Your task to perform on an android device: turn on location history Image 0: 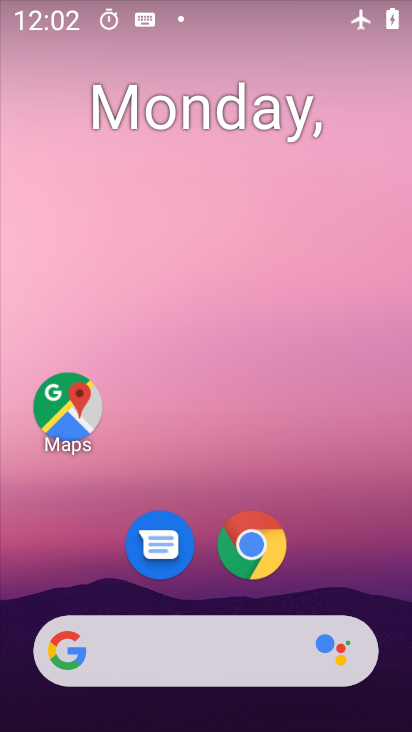
Step 0: drag from (195, 577) to (275, 99)
Your task to perform on an android device: turn on location history Image 1: 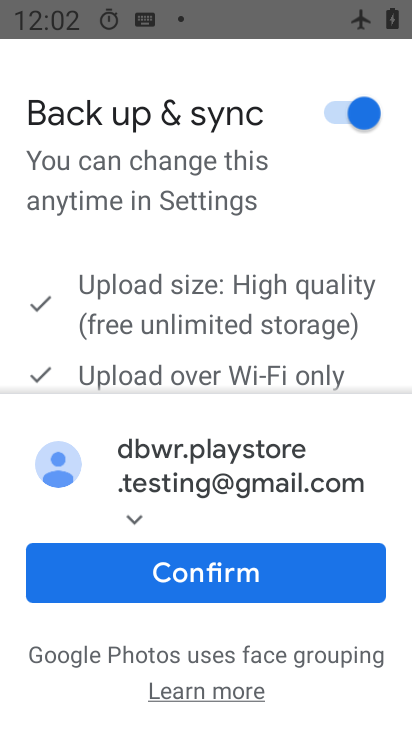
Step 1: press home button
Your task to perform on an android device: turn on location history Image 2: 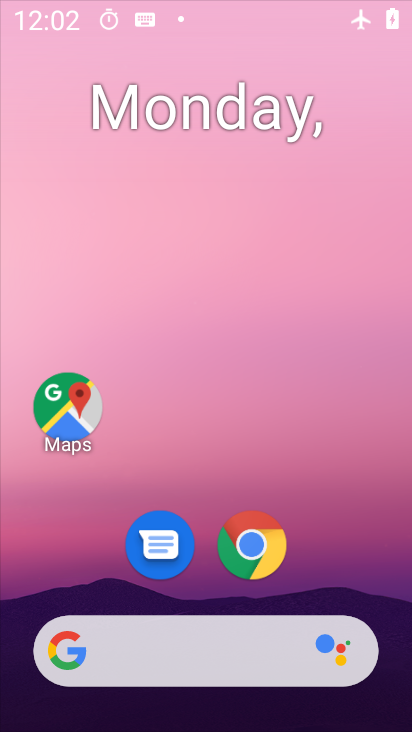
Step 2: drag from (257, 563) to (232, 151)
Your task to perform on an android device: turn on location history Image 3: 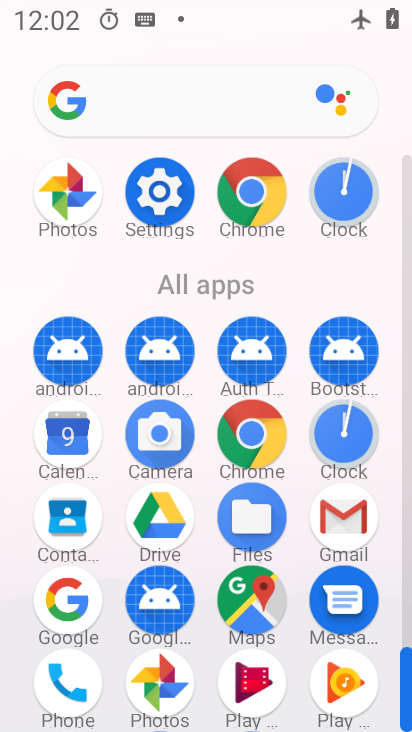
Step 3: click (168, 191)
Your task to perform on an android device: turn on location history Image 4: 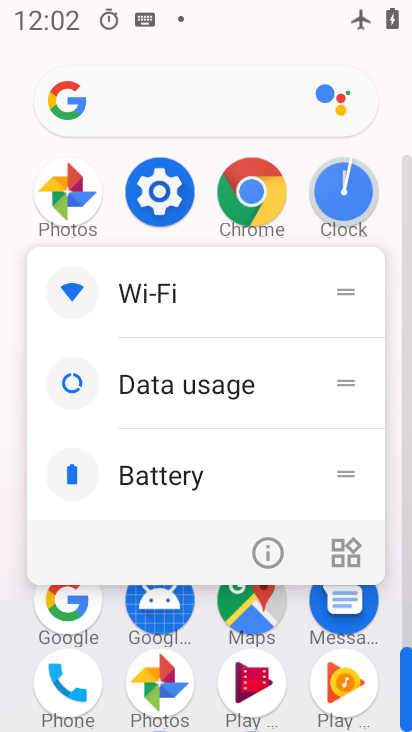
Step 4: click (266, 560)
Your task to perform on an android device: turn on location history Image 5: 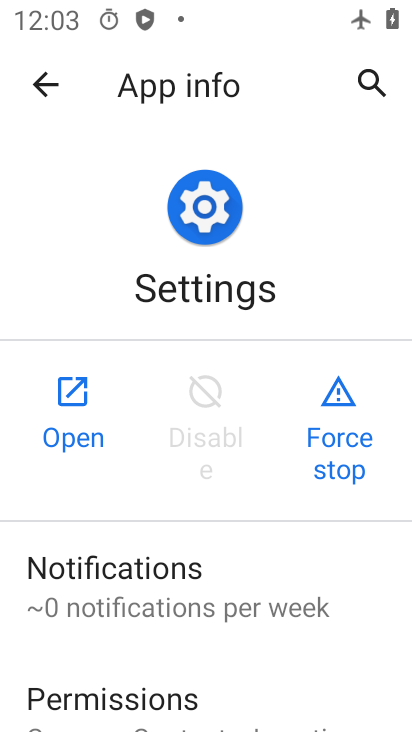
Step 5: click (69, 385)
Your task to perform on an android device: turn on location history Image 6: 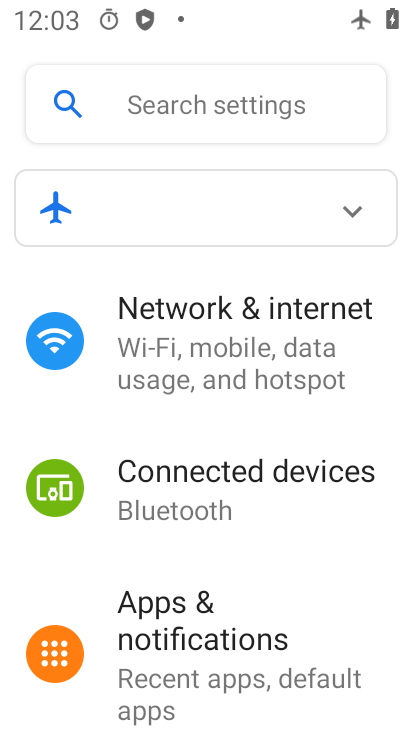
Step 6: drag from (139, 653) to (224, 161)
Your task to perform on an android device: turn on location history Image 7: 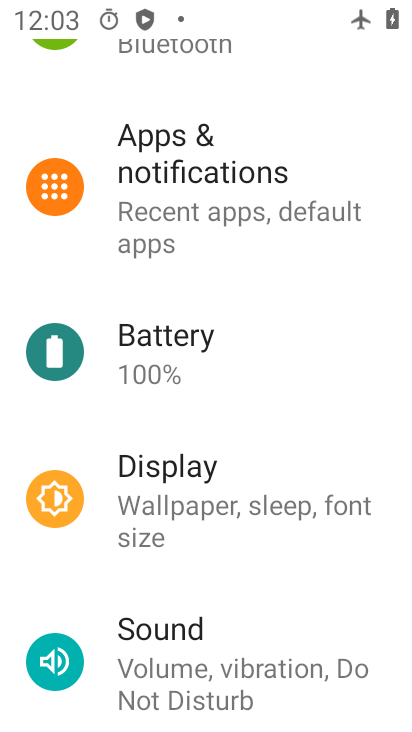
Step 7: drag from (211, 612) to (322, 140)
Your task to perform on an android device: turn on location history Image 8: 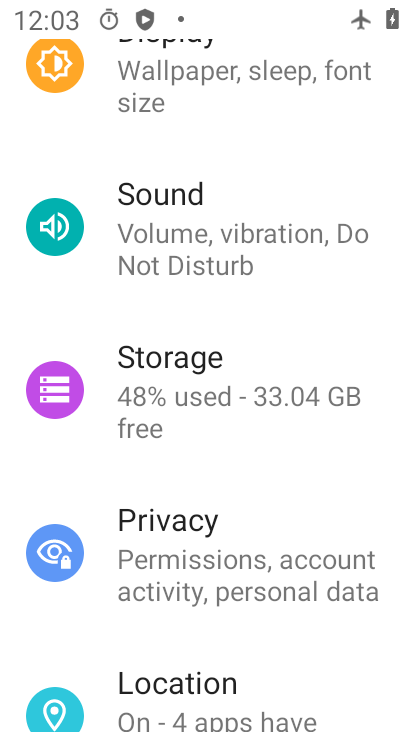
Step 8: click (169, 695)
Your task to perform on an android device: turn on location history Image 9: 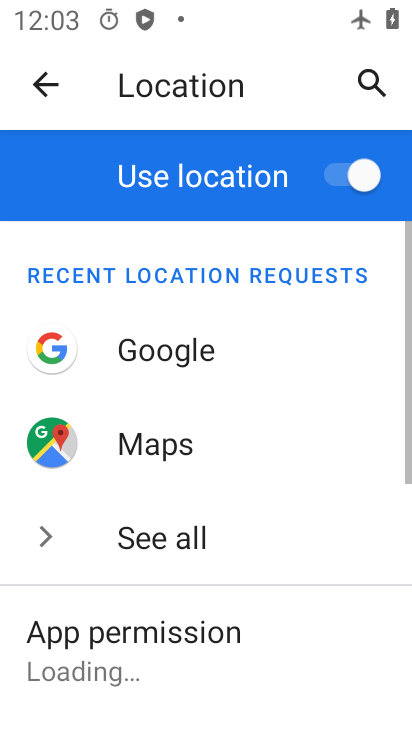
Step 9: drag from (194, 669) to (256, 242)
Your task to perform on an android device: turn on location history Image 10: 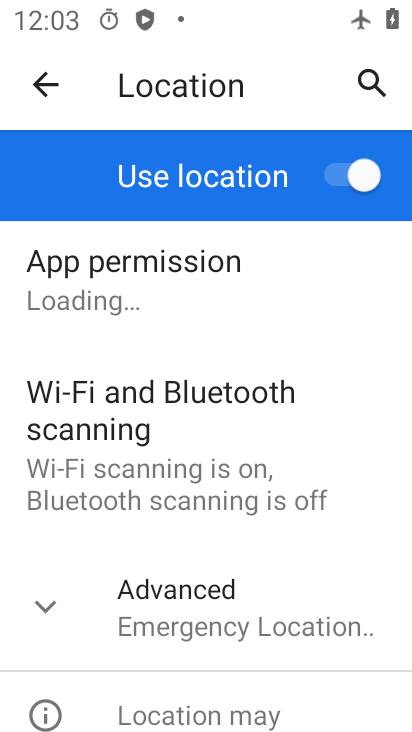
Step 10: click (142, 617)
Your task to perform on an android device: turn on location history Image 11: 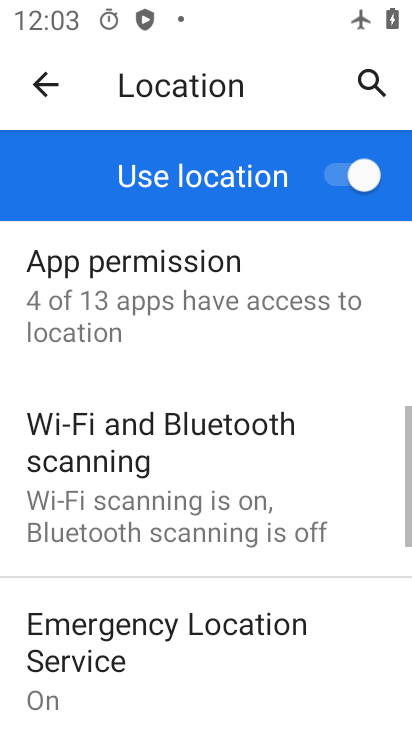
Step 11: drag from (193, 671) to (274, 223)
Your task to perform on an android device: turn on location history Image 12: 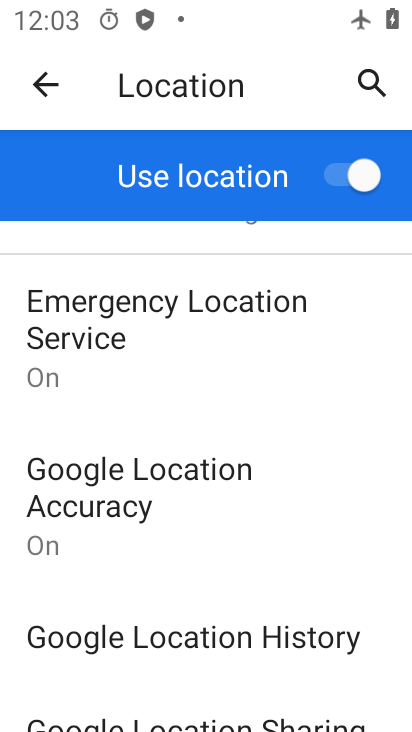
Step 12: click (227, 647)
Your task to perform on an android device: turn on location history Image 13: 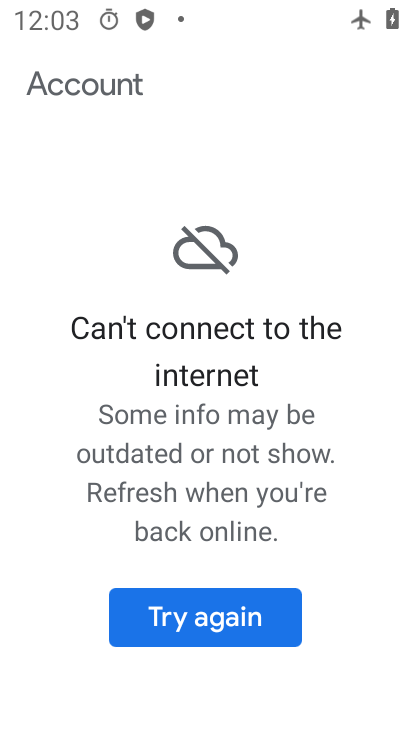
Step 13: click (198, 613)
Your task to perform on an android device: turn on location history Image 14: 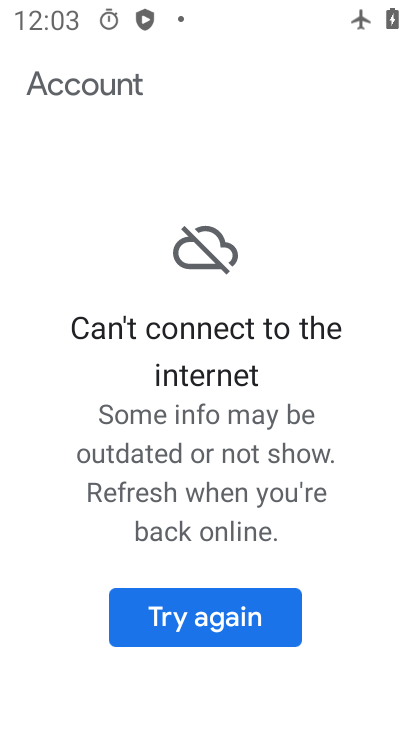
Step 14: task complete